Your task to perform on an android device: Clear all items from cart on ebay.com. Image 0: 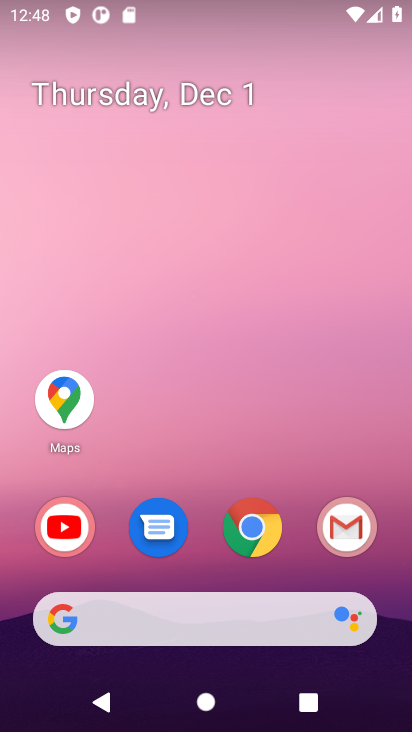
Step 0: click (255, 527)
Your task to perform on an android device: Clear all items from cart on ebay.com. Image 1: 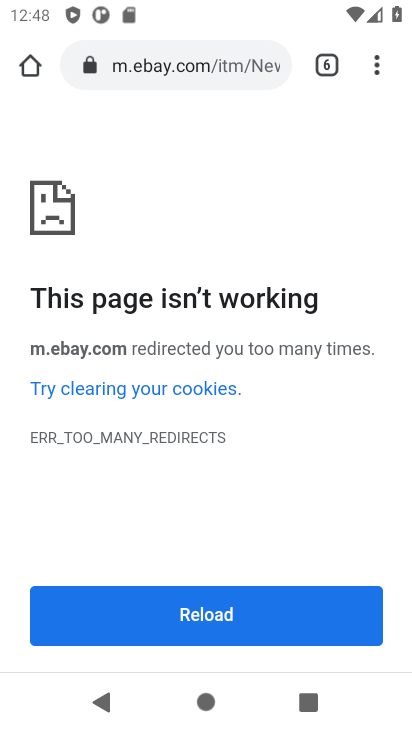
Step 1: click (211, 44)
Your task to perform on an android device: Clear all items from cart on ebay.com. Image 2: 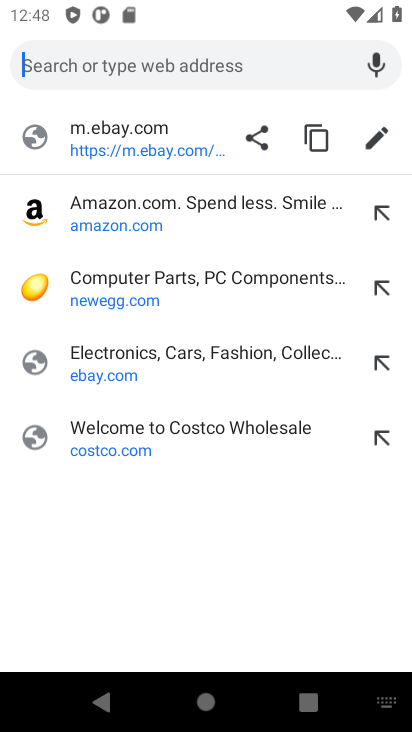
Step 2: click (94, 357)
Your task to perform on an android device: Clear all items from cart on ebay.com. Image 3: 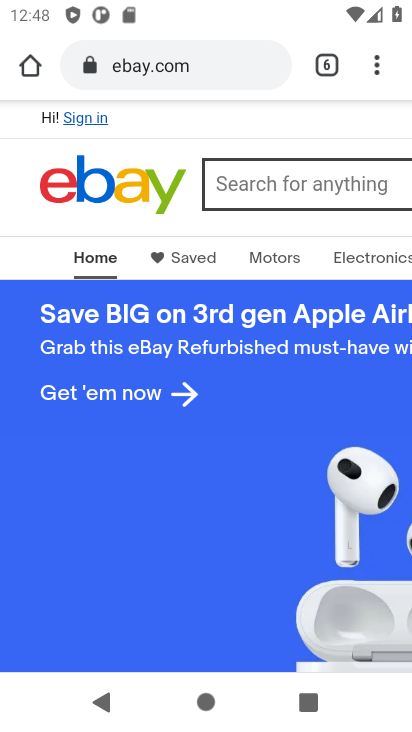
Step 3: drag from (319, 231) to (13, 284)
Your task to perform on an android device: Clear all items from cart on ebay.com. Image 4: 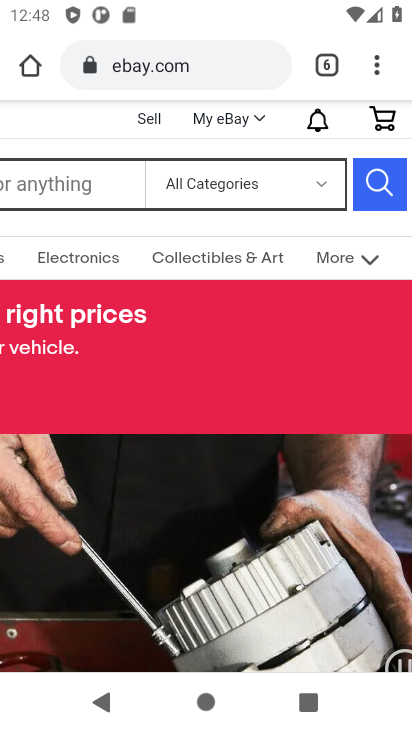
Step 4: click (370, 114)
Your task to perform on an android device: Clear all items from cart on ebay.com. Image 5: 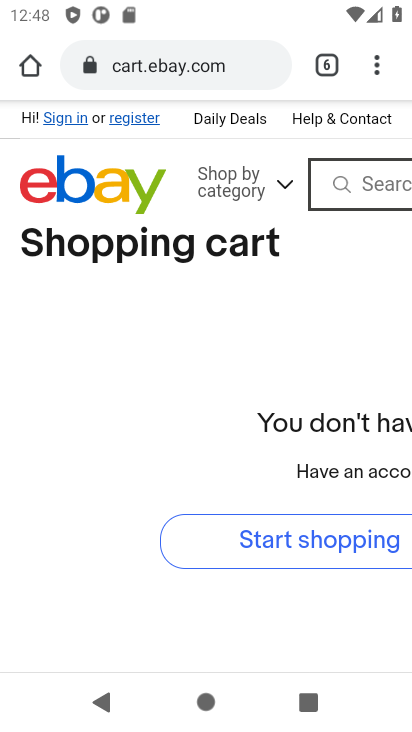
Step 5: task complete